Your task to perform on an android device: turn vacation reply on in the gmail app Image 0: 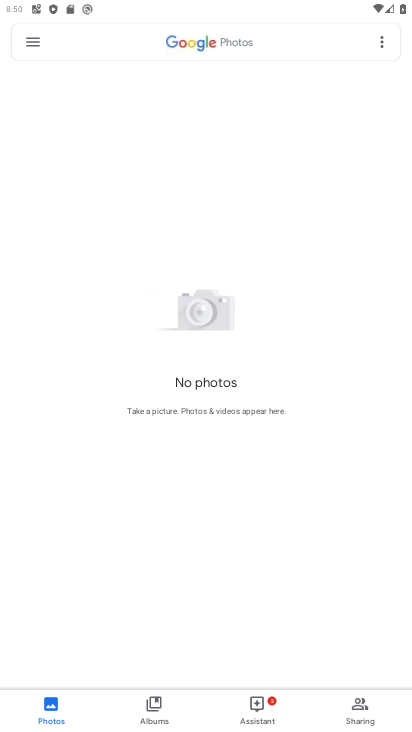
Step 0: drag from (232, 505) to (225, 207)
Your task to perform on an android device: turn vacation reply on in the gmail app Image 1: 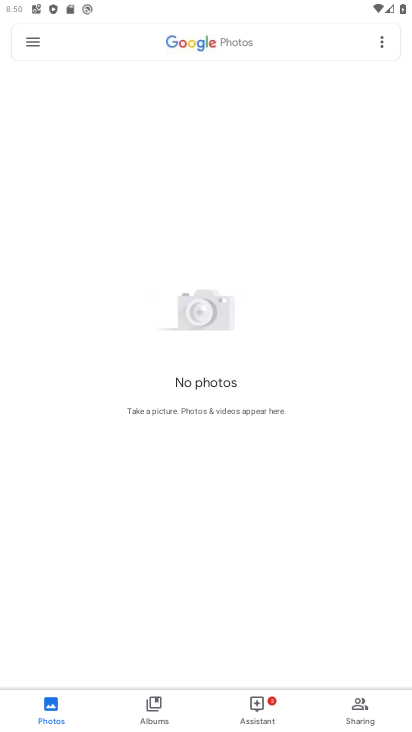
Step 1: click (27, 36)
Your task to perform on an android device: turn vacation reply on in the gmail app Image 2: 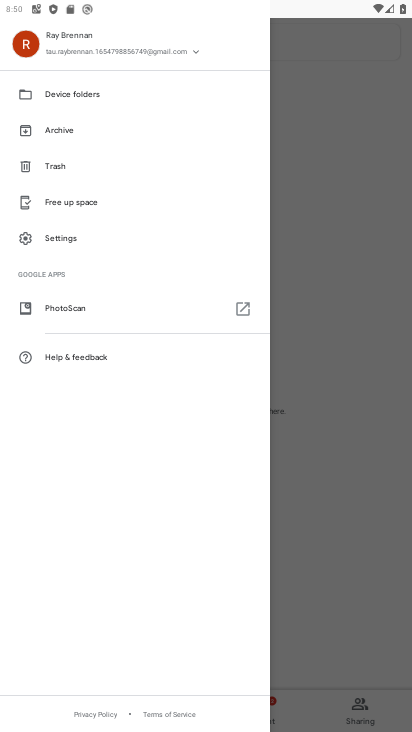
Step 2: click (319, 230)
Your task to perform on an android device: turn vacation reply on in the gmail app Image 3: 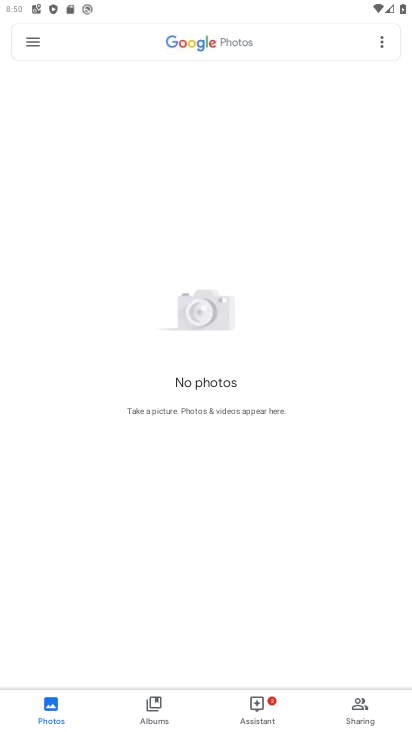
Step 3: press home button
Your task to perform on an android device: turn vacation reply on in the gmail app Image 4: 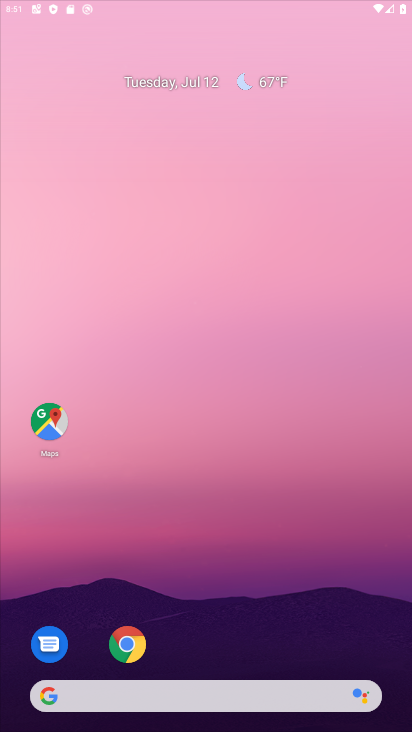
Step 4: drag from (187, 595) to (259, 161)
Your task to perform on an android device: turn vacation reply on in the gmail app Image 5: 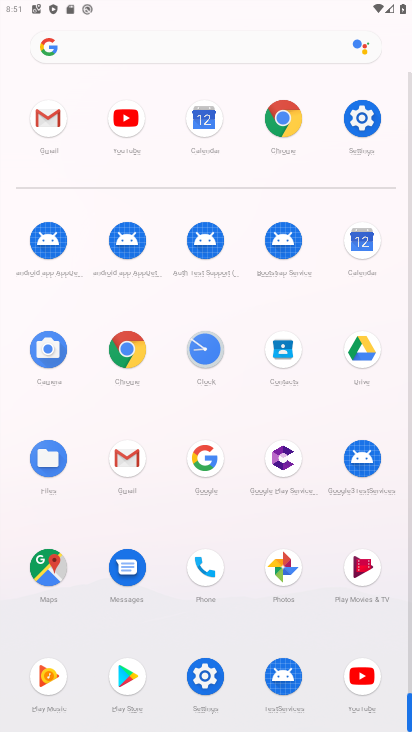
Step 5: click (130, 456)
Your task to perform on an android device: turn vacation reply on in the gmail app Image 6: 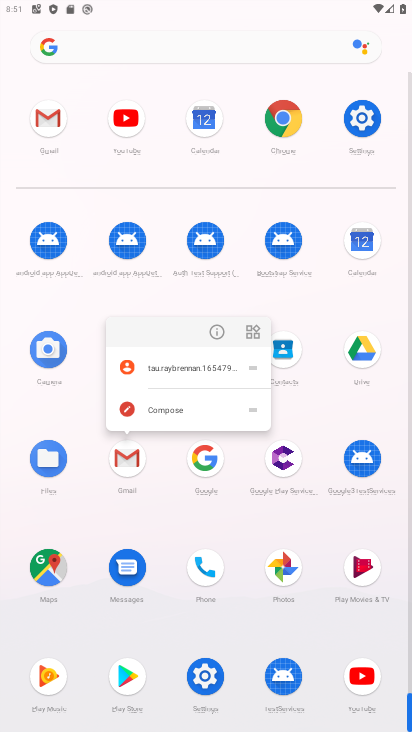
Step 6: click (211, 329)
Your task to perform on an android device: turn vacation reply on in the gmail app Image 7: 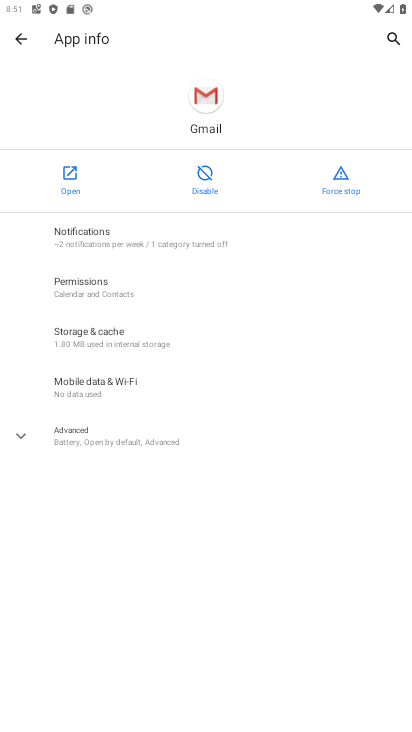
Step 7: click (67, 170)
Your task to perform on an android device: turn vacation reply on in the gmail app Image 8: 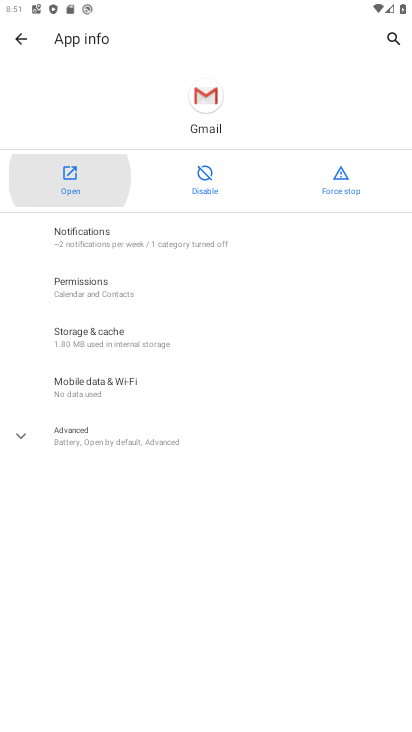
Step 8: click (67, 170)
Your task to perform on an android device: turn vacation reply on in the gmail app Image 9: 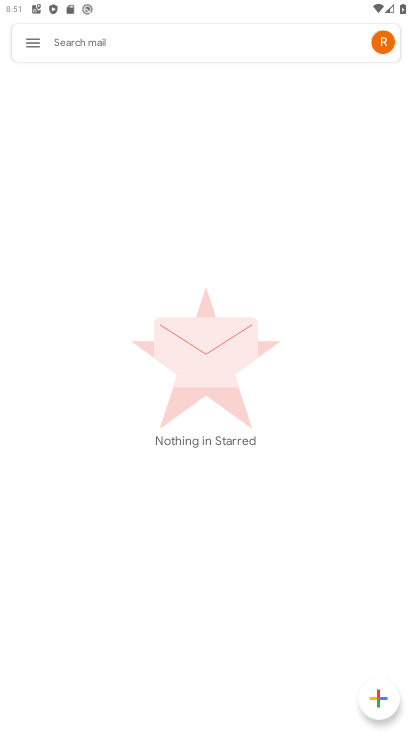
Step 9: drag from (222, 613) to (203, 337)
Your task to perform on an android device: turn vacation reply on in the gmail app Image 10: 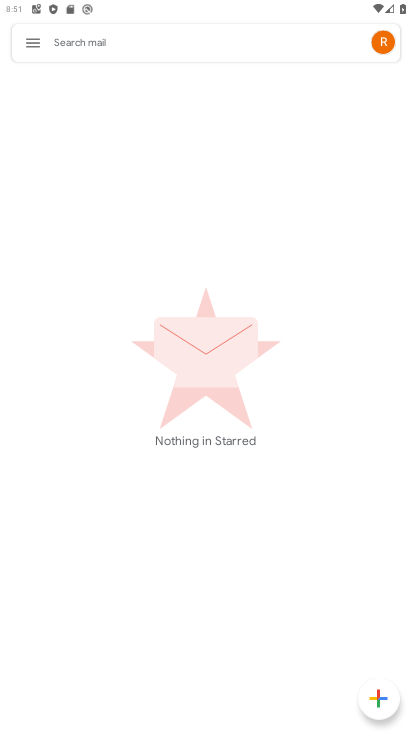
Step 10: click (20, 35)
Your task to perform on an android device: turn vacation reply on in the gmail app Image 11: 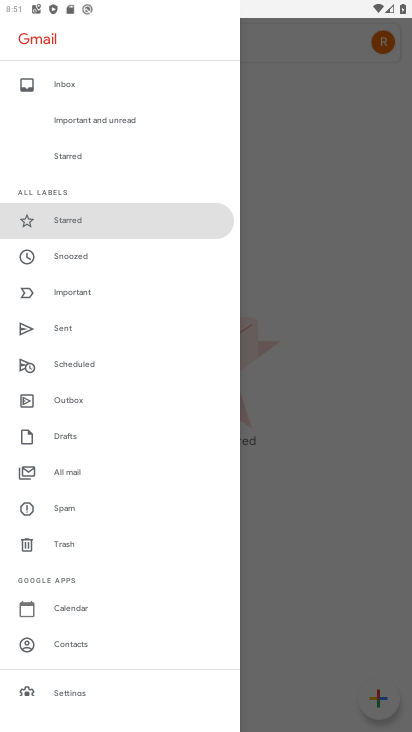
Step 11: drag from (72, 527) to (104, 80)
Your task to perform on an android device: turn vacation reply on in the gmail app Image 12: 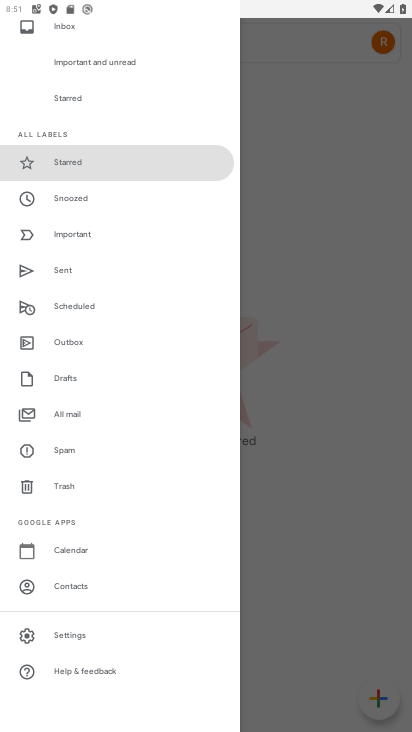
Step 12: click (69, 630)
Your task to perform on an android device: turn vacation reply on in the gmail app Image 13: 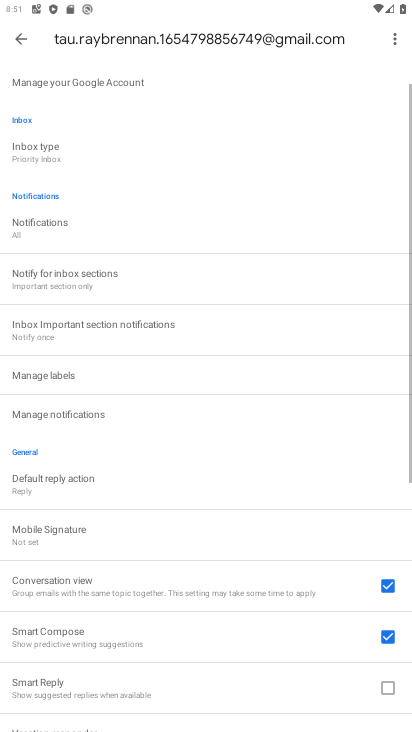
Step 13: drag from (146, 624) to (199, 289)
Your task to perform on an android device: turn vacation reply on in the gmail app Image 14: 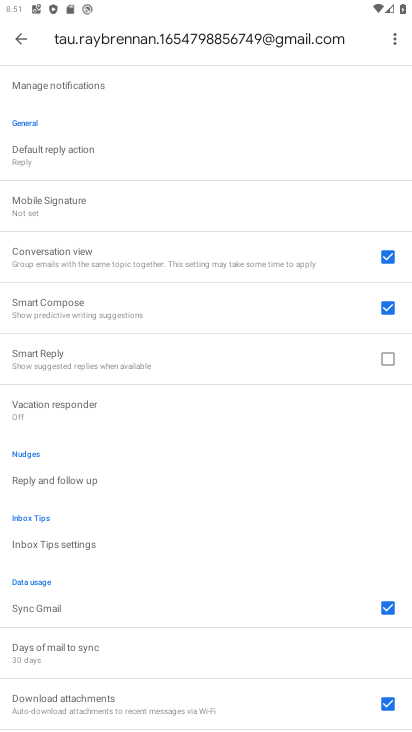
Step 14: click (85, 398)
Your task to perform on an android device: turn vacation reply on in the gmail app Image 15: 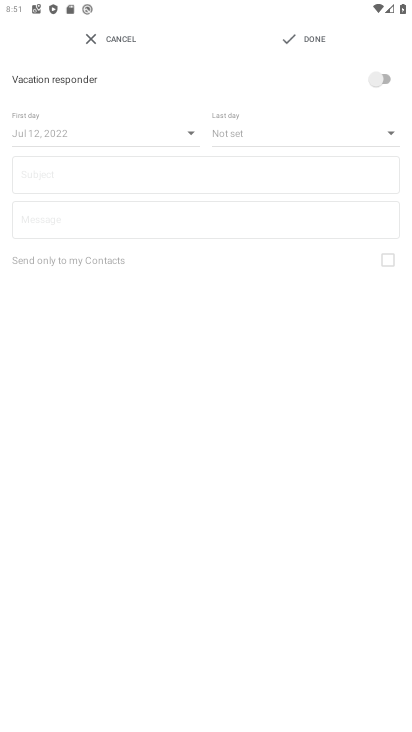
Step 15: click (352, 59)
Your task to perform on an android device: turn vacation reply on in the gmail app Image 16: 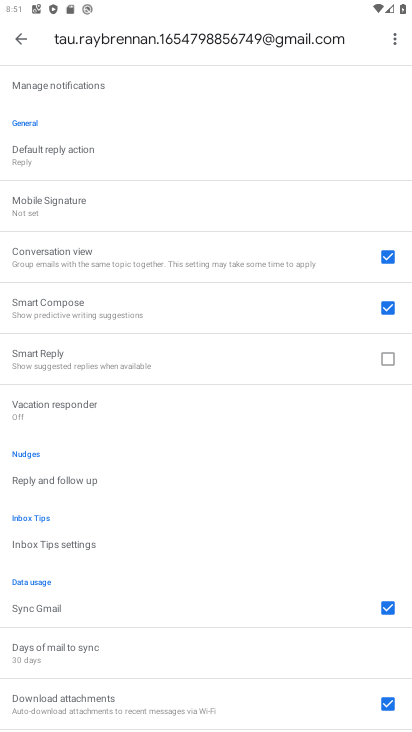
Step 16: click (87, 416)
Your task to perform on an android device: turn vacation reply on in the gmail app Image 17: 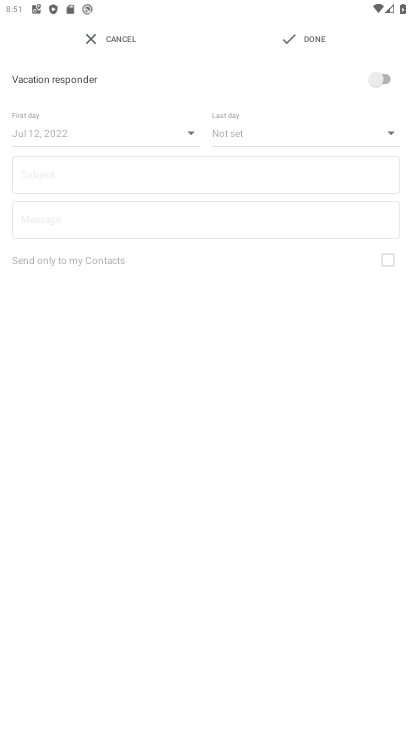
Step 17: click (388, 73)
Your task to perform on an android device: turn vacation reply on in the gmail app Image 18: 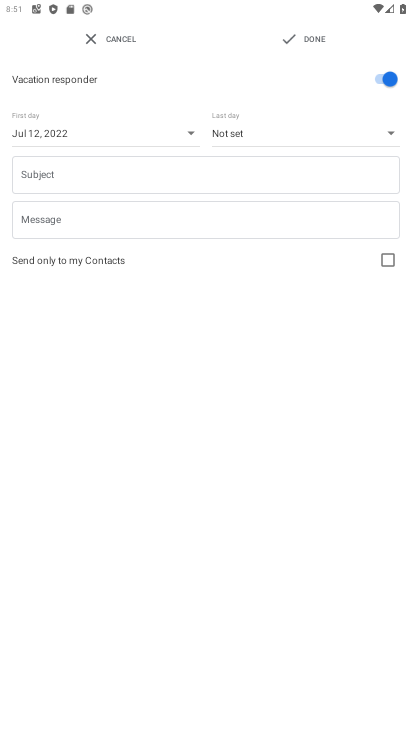
Step 18: click (299, 33)
Your task to perform on an android device: turn vacation reply on in the gmail app Image 19: 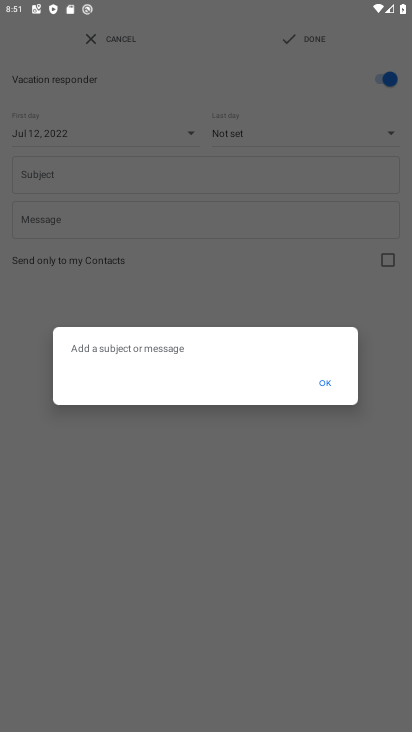
Step 19: task complete